Your task to perform on an android device: Open Chrome and go to settings Image 0: 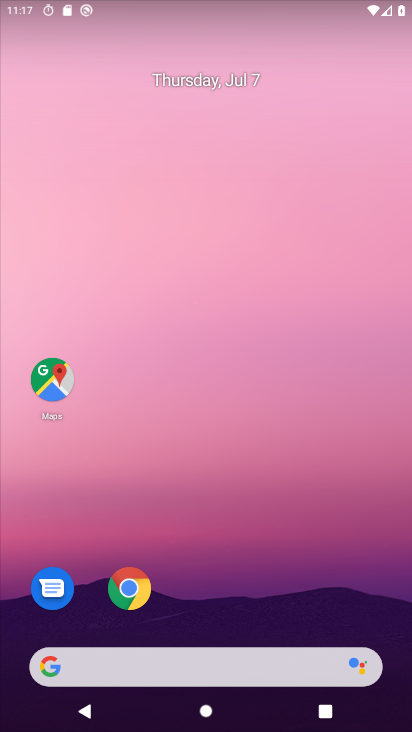
Step 0: click (124, 592)
Your task to perform on an android device: Open Chrome and go to settings Image 1: 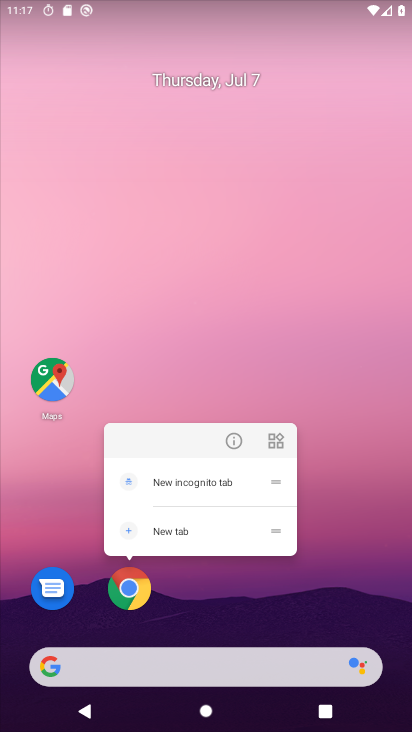
Step 1: click (117, 586)
Your task to perform on an android device: Open Chrome and go to settings Image 2: 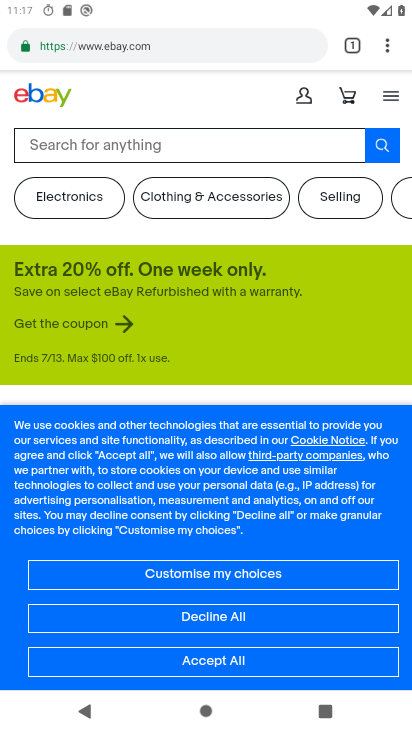
Step 2: task complete